Your task to perform on an android device: open chrome privacy settings Image 0: 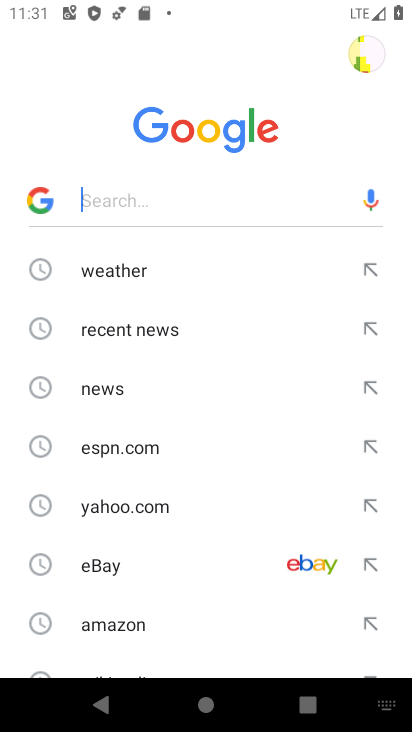
Step 0: press home button
Your task to perform on an android device: open chrome privacy settings Image 1: 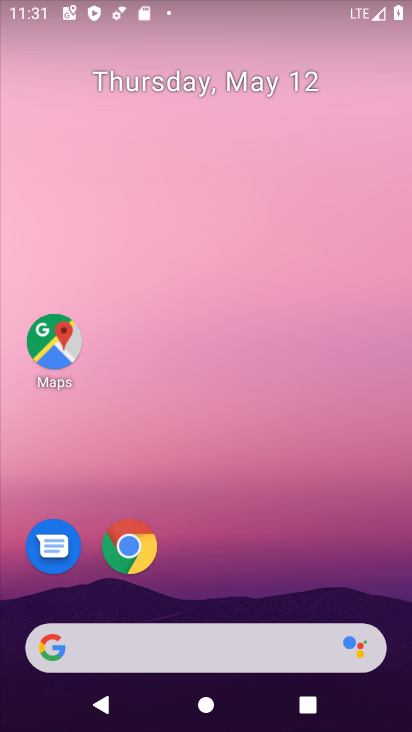
Step 1: click (131, 542)
Your task to perform on an android device: open chrome privacy settings Image 2: 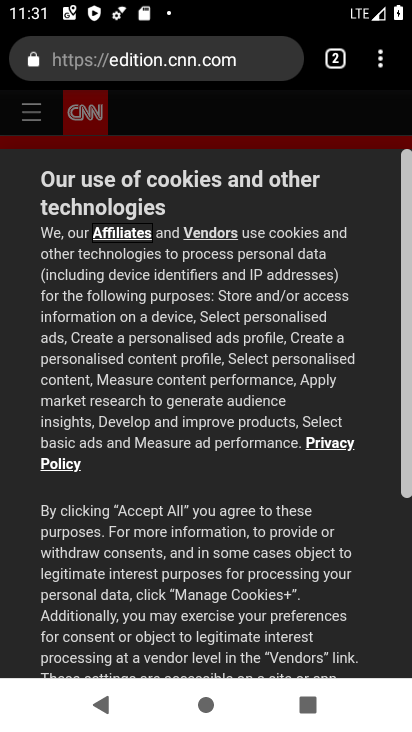
Step 2: click (386, 62)
Your task to perform on an android device: open chrome privacy settings Image 3: 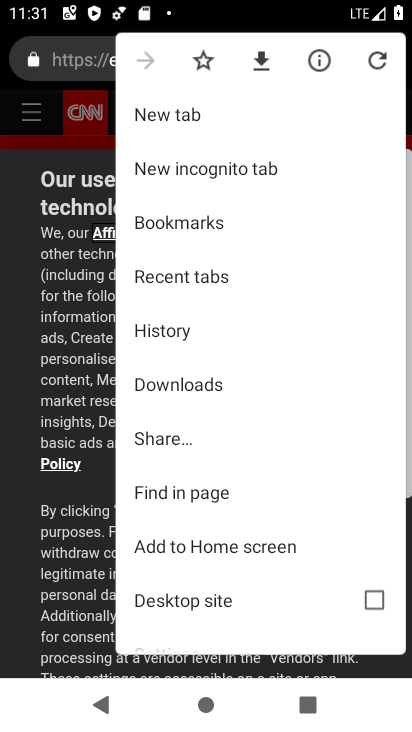
Step 3: drag from (254, 557) to (256, 258)
Your task to perform on an android device: open chrome privacy settings Image 4: 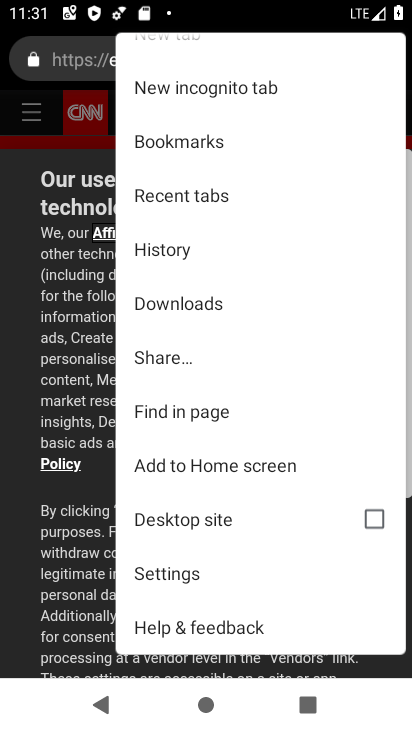
Step 4: click (199, 565)
Your task to perform on an android device: open chrome privacy settings Image 5: 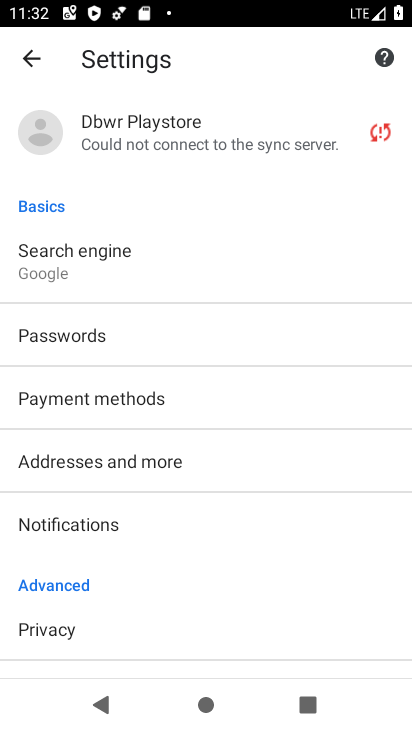
Step 5: drag from (199, 565) to (195, 276)
Your task to perform on an android device: open chrome privacy settings Image 6: 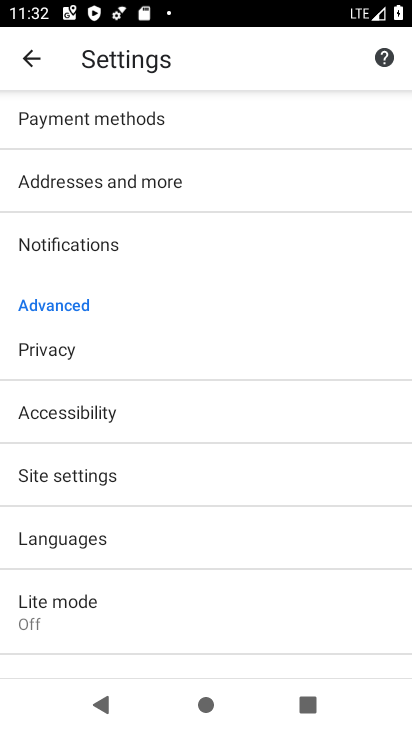
Step 6: click (51, 347)
Your task to perform on an android device: open chrome privacy settings Image 7: 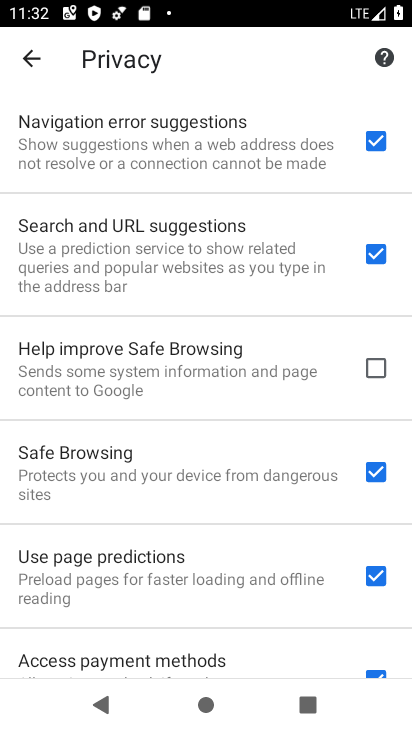
Step 7: task complete